Your task to perform on an android device: Open calendar and show me the first week of next month Image 0: 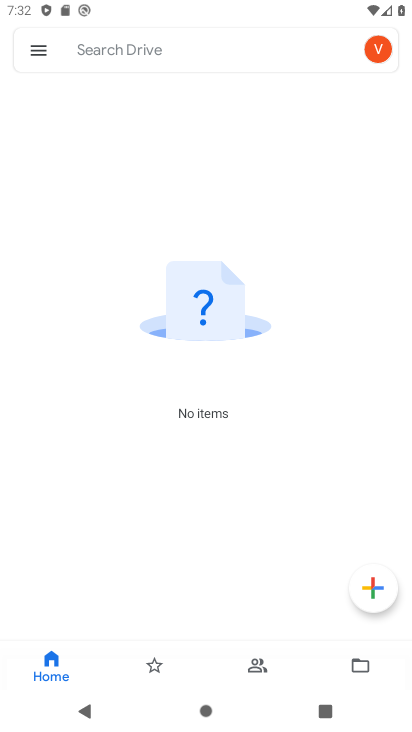
Step 0: press home button
Your task to perform on an android device: Open calendar and show me the first week of next month Image 1: 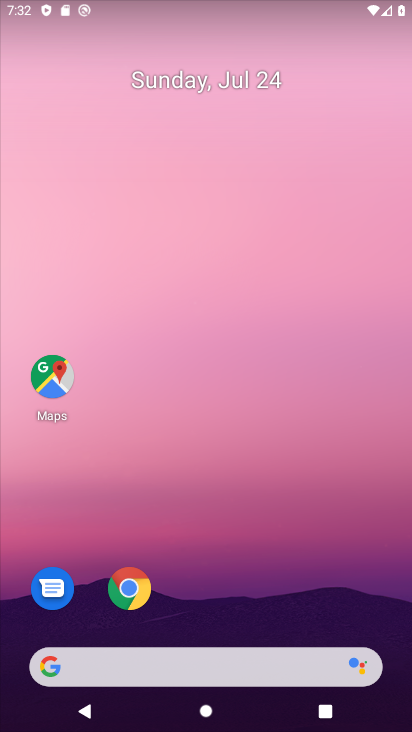
Step 1: drag from (212, 388) to (244, 35)
Your task to perform on an android device: Open calendar and show me the first week of next month Image 2: 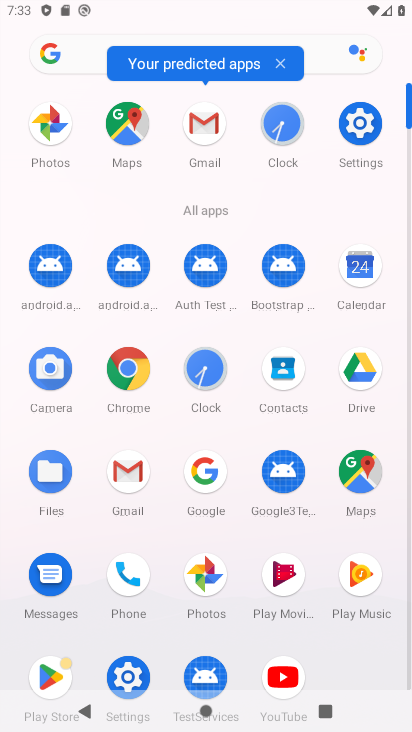
Step 2: click (362, 270)
Your task to perform on an android device: Open calendar and show me the first week of next month Image 3: 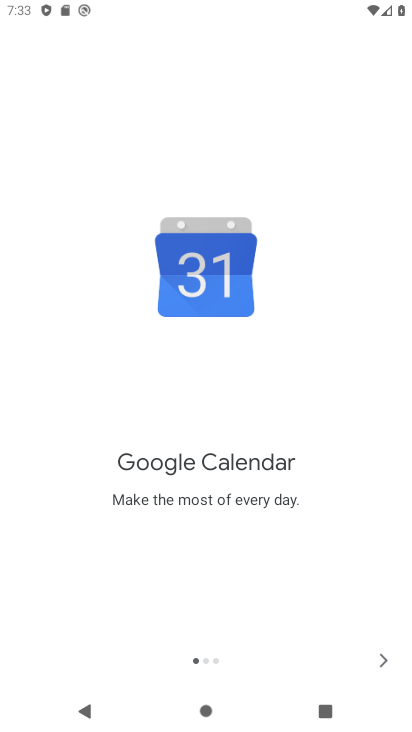
Step 3: click (385, 659)
Your task to perform on an android device: Open calendar and show me the first week of next month Image 4: 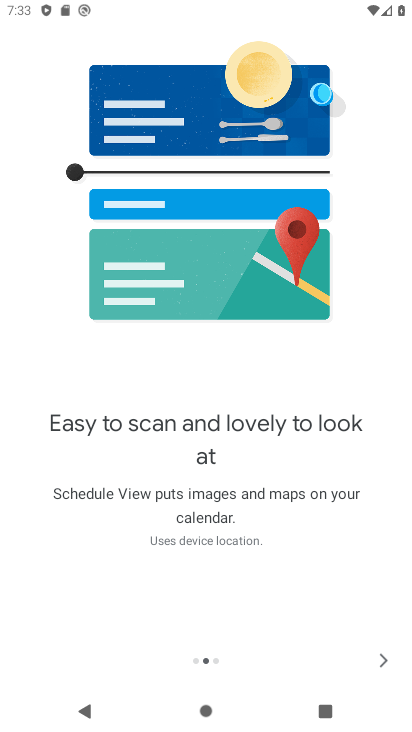
Step 4: click (385, 659)
Your task to perform on an android device: Open calendar and show me the first week of next month Image 5: 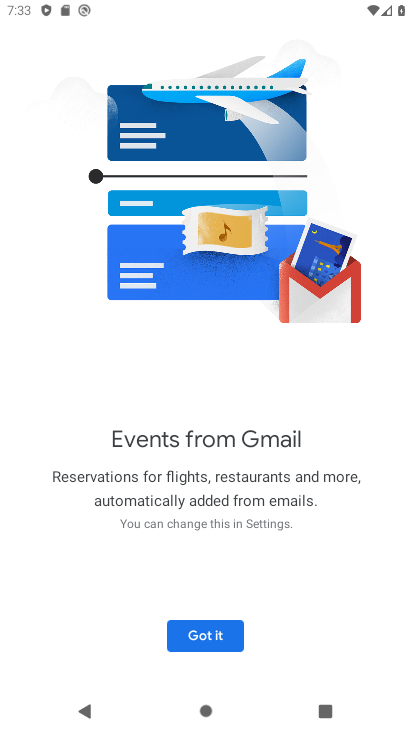
Step 5: click (226, 639)
Your task to perform on an android device: Open calendar and show me the first week of next month Image 6: 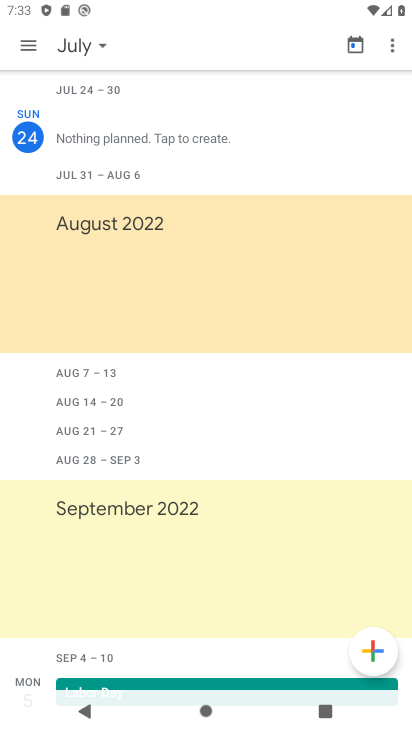
Step 6: click (30, 45)
Your task to perform on an android device: Open calendar and show me the first week of next month Image 7: 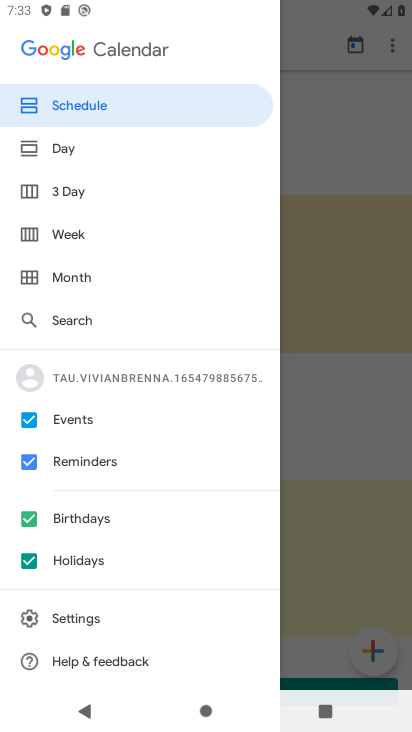
Step 7: click (65, 226)
Your task to perform on an android device: Open calendar and show me the first week of next month Image 8: 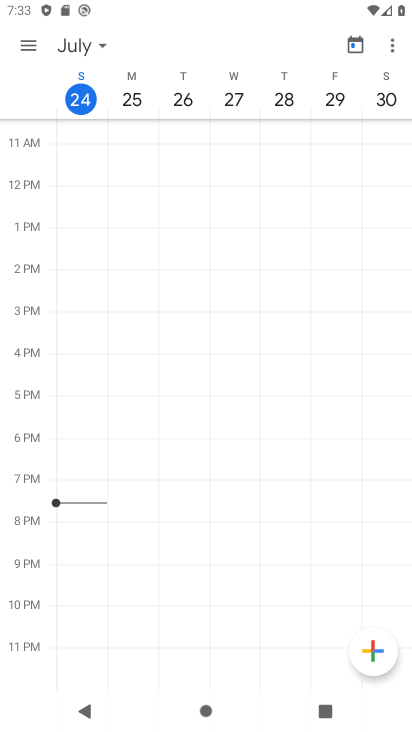
Step 8: task complete